Your task to perform on an android device: Search for seafood restaurants on Google Maps Image 0: 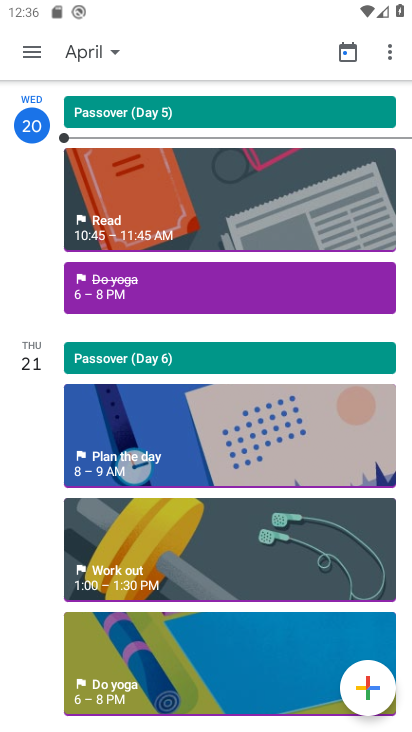
Step 0: press home button
Your task to perform on an android device: Search for seafood restaurants on Google Maps Image 1: 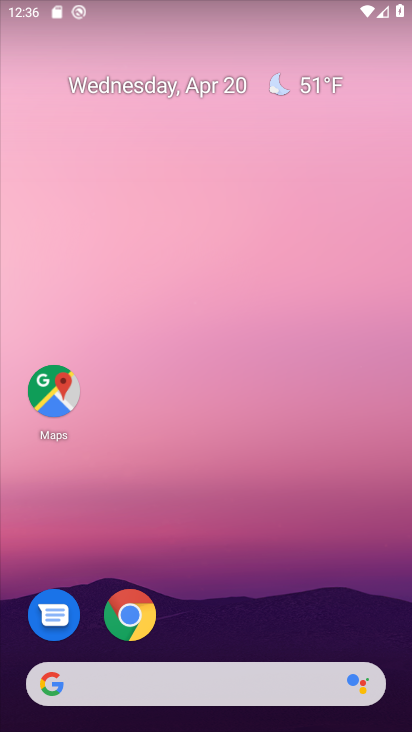
Step 1: click (34, 393)
Your task to perform on an android device: Search for seafood restaurants on Google Maps Image 2: 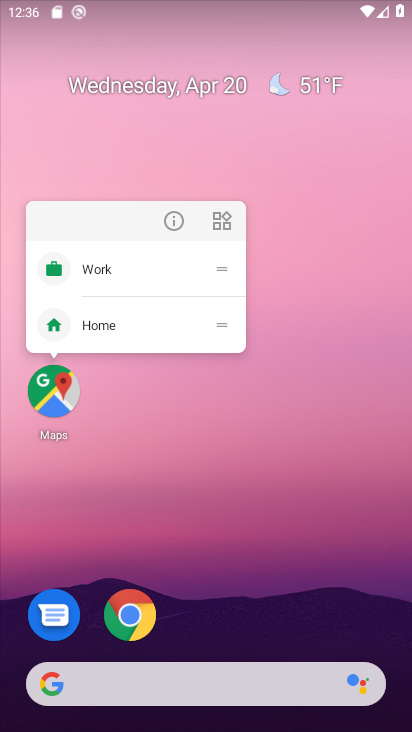
Step 2: click (33, 412)
Your task to perform on an android device: Search for seafood restaurants on Google Maps Image 3: 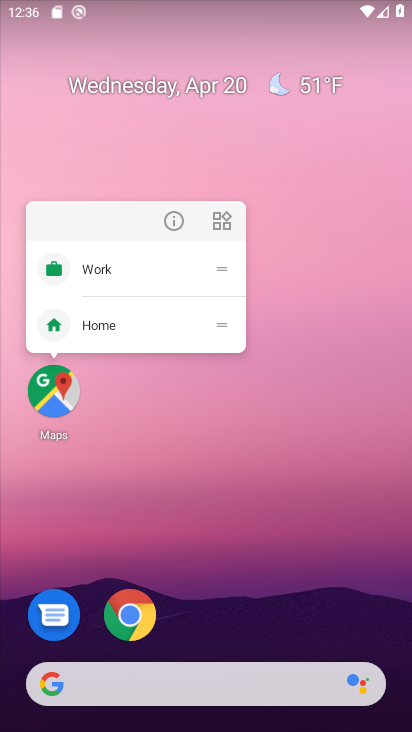
Step 3: click (59, 409)
Your task to perform on an android device: Search for seafood restaurants on Google Maps Image 4: 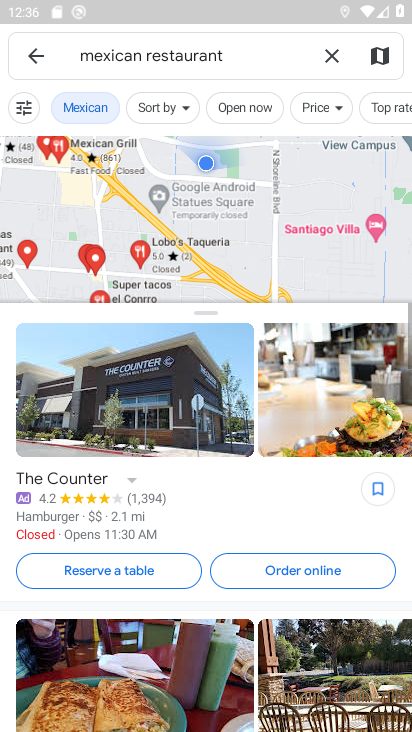
Step 4: click (324, 52)
Your task to perform on an android device: Search for seafood restaurants on Google Maps Image 5: 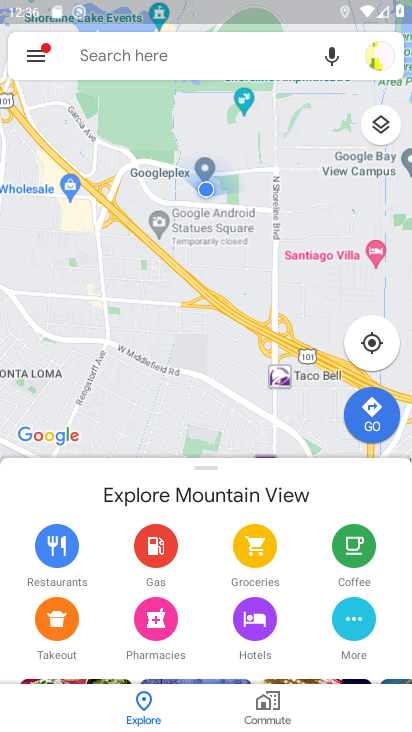
Step 5: click (212, 52)
Your task to perform on an android device: Search for seafood restaurants on Google Maps Image 6: 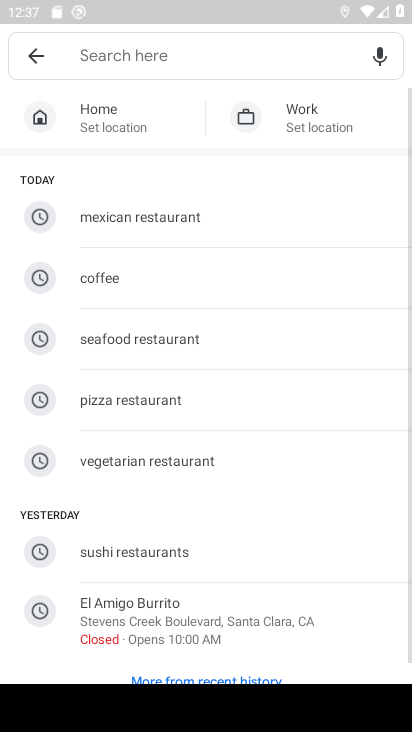
Step 6: click (131, 339)
Your task to perform on an android device: Search for seafood restaurants on Google Maps Image 7: 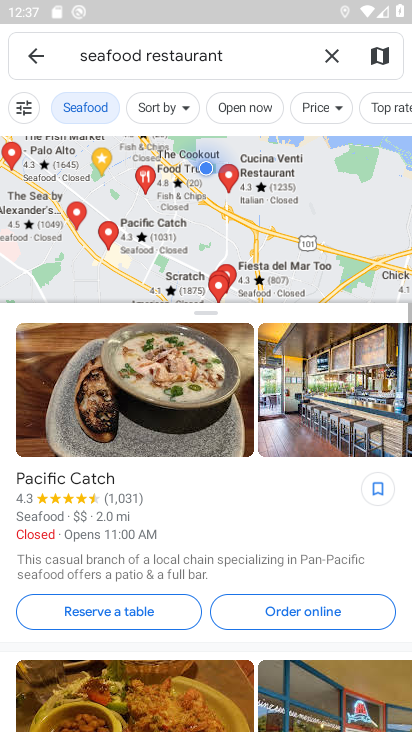
Step 7: task complete